Your task to perform on an android device: Open Google Image 0: 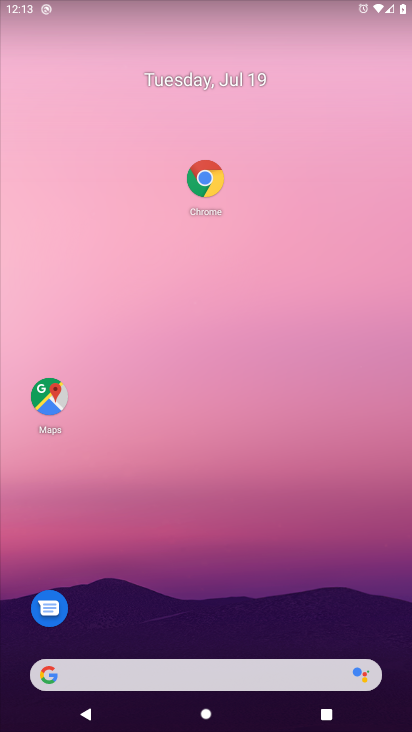
Step 0: click (146, 675)
Your task to perform on an android device: Open Google Image 1: 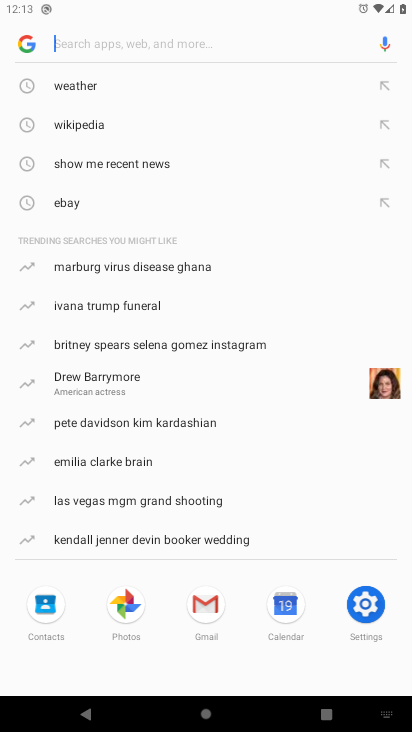
Step 1: task complete